Your task to perform on an android device: Open calendar and show me the third week of next month Image 0: 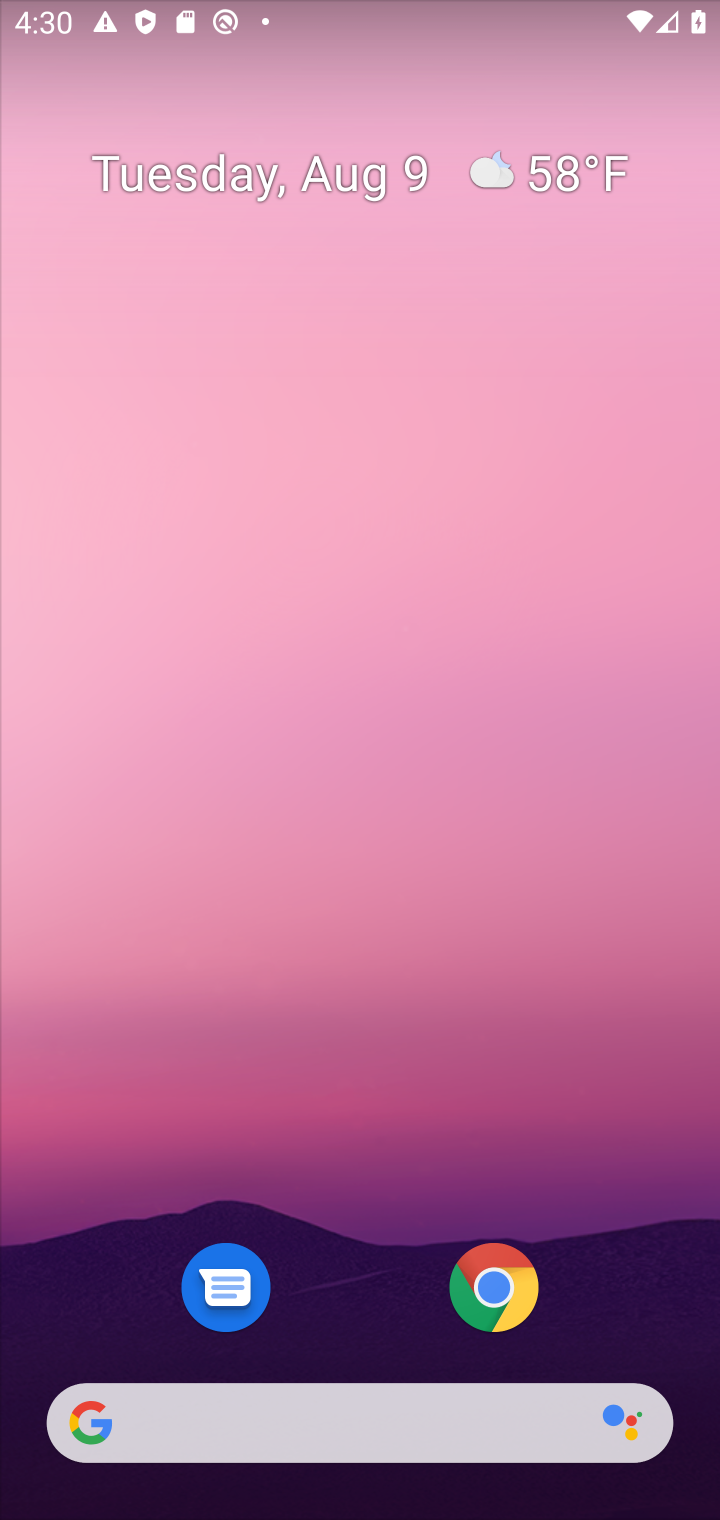
Step 0: drag from (492, 986) to (460, 249)
Your task to perform on an android device: Open calendar and show me the third week of next month Image 1: 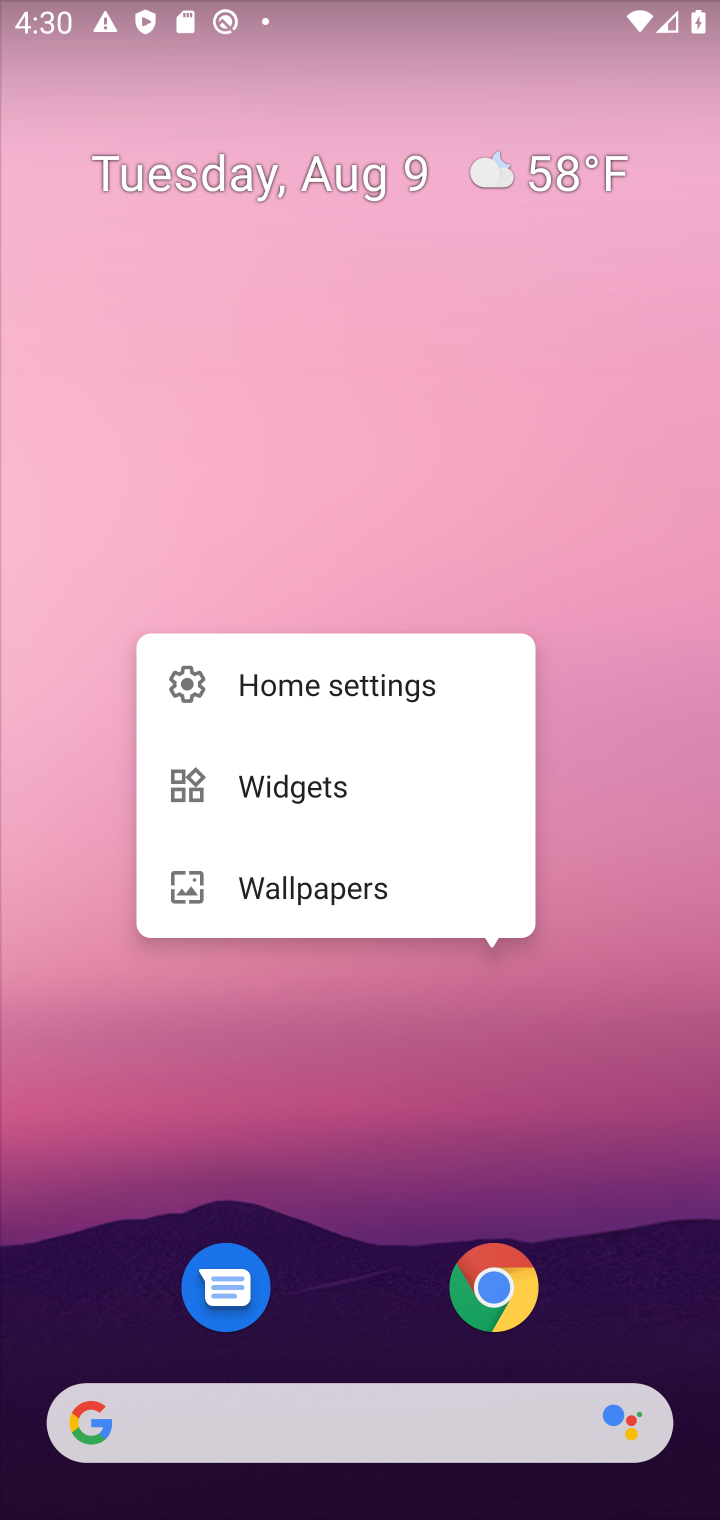
Step 1: click (387, 982)
Your task to perform on an android device: Open calendar and show me the third week of next month Image 2: 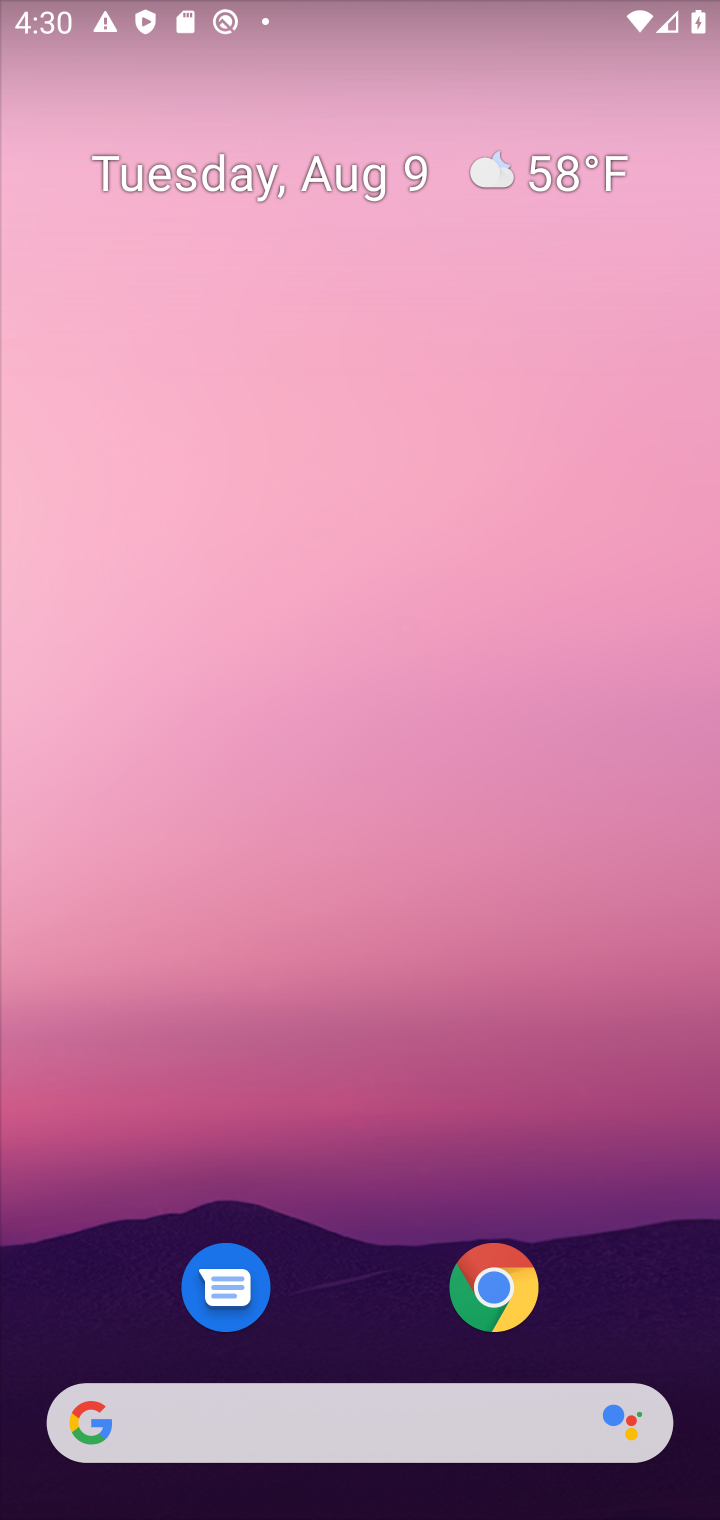
Step 2: drag from (389, 1033) to (401, 222)
Your task to perform on an android device: Open calendar and show me the third week of next month Image 3: 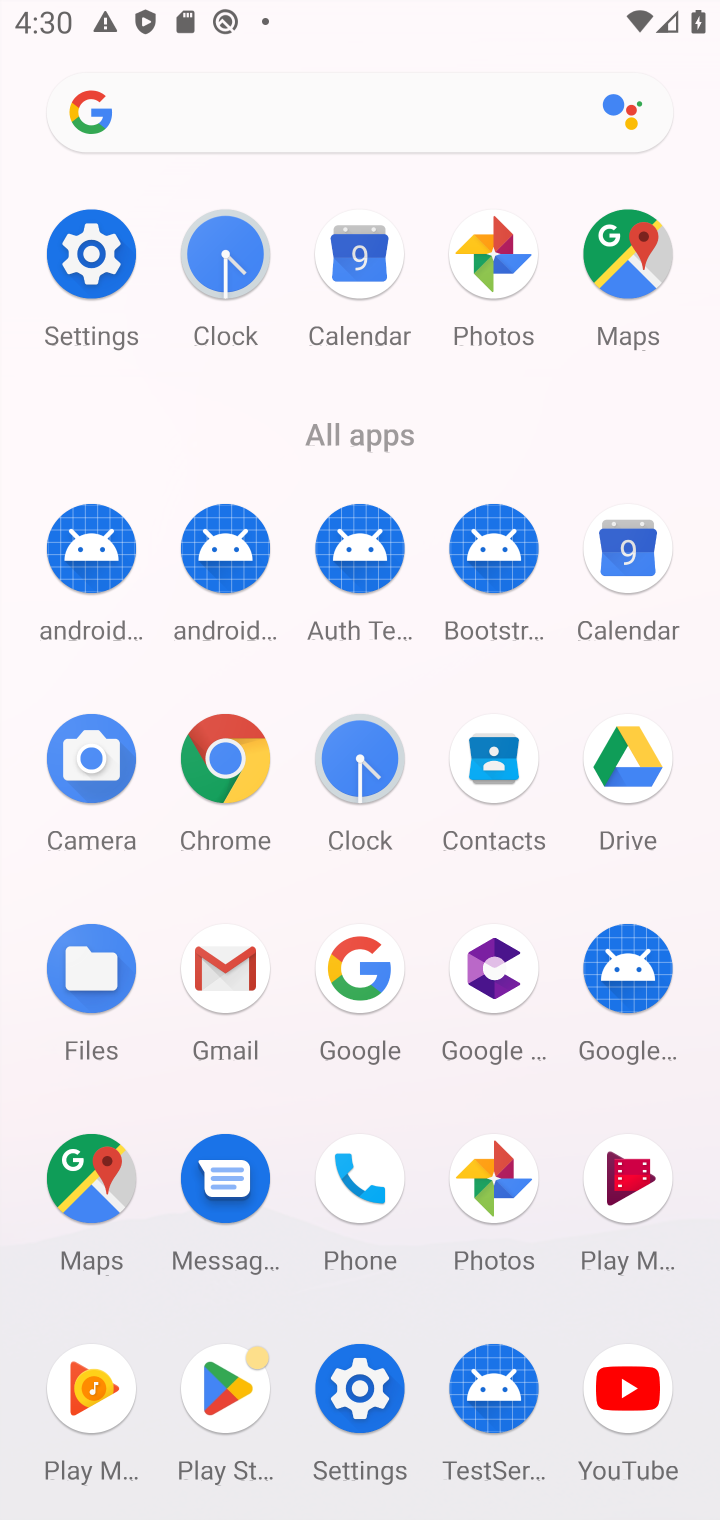
Step 3: click (624, 561)
Your task to perform on an android device: Open calendar and show me the third week of next month Image 4: 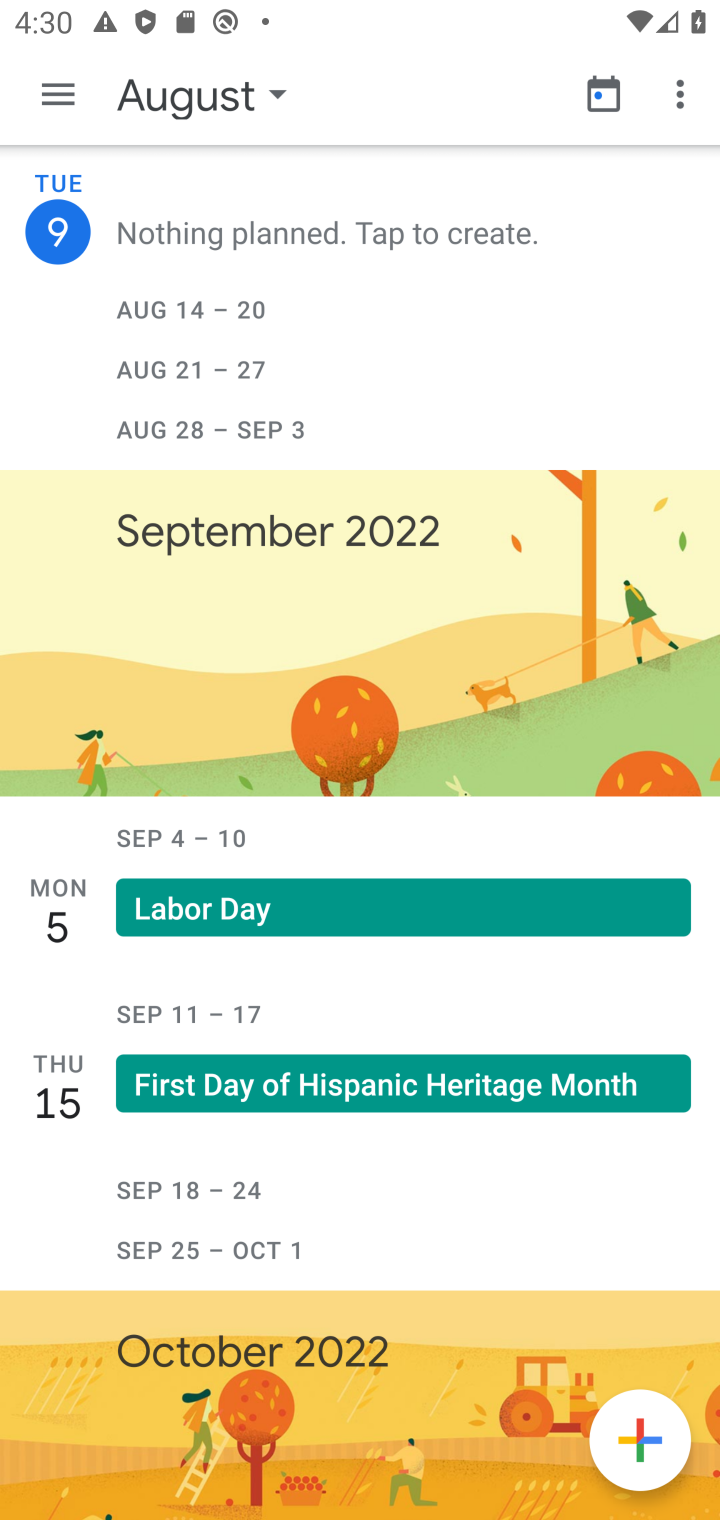
Step 4: task complete